Your task to perform on an android device: Go to privacy settings Image 0: 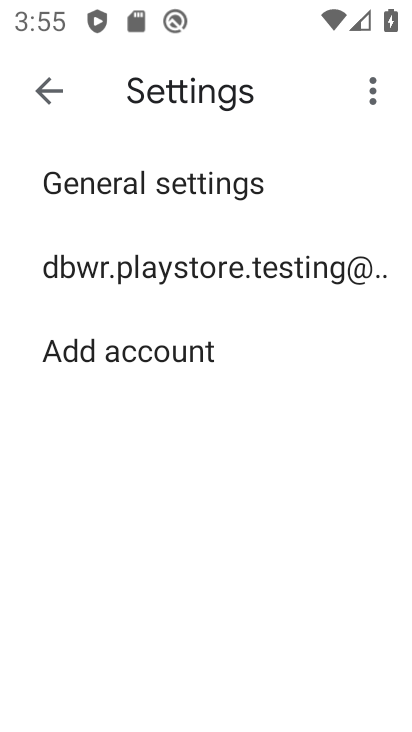
Step 0: click (173, 279)
Your task to perform on an android device: Go to privacy settings Image 1: 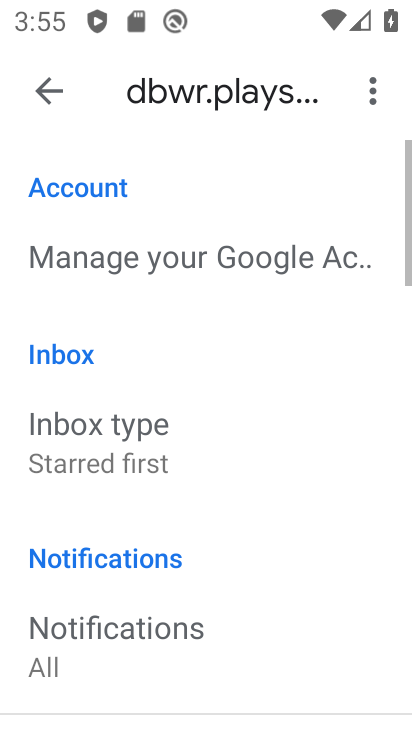
Step 1: drag from (173, 642) to (304, 111)
Your task to perform on an android device: Go to privacy settings Image 2: 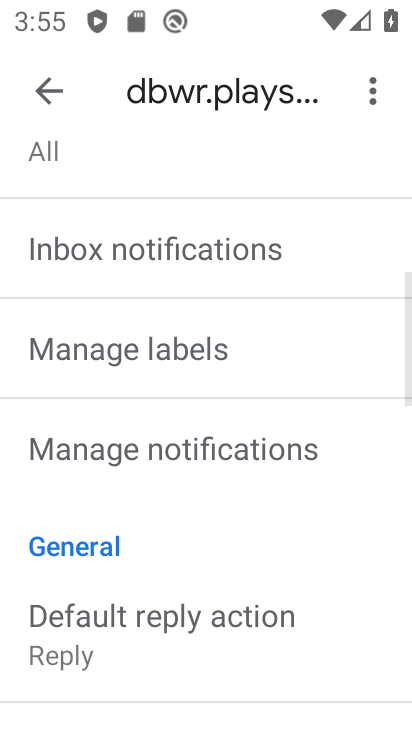
Step 2: drag from (172, 605) to (294, 79)
Your task to perform on an android device: Go to privacy settings Image 3: 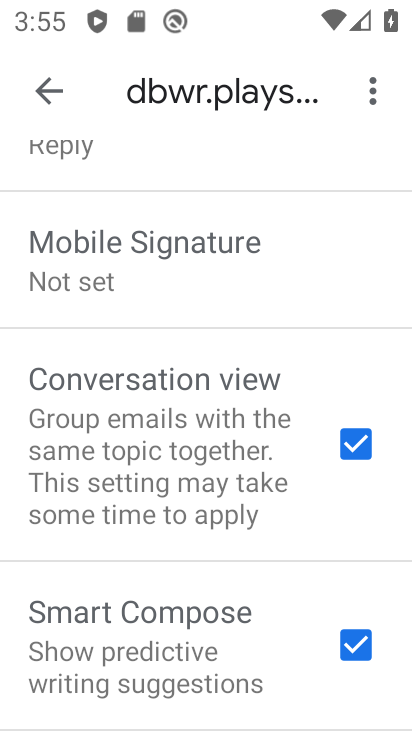
Step 3: drag from (145, 563) to (282, 136)
Your task to perform on an android device: Go to privacy settings Image 4: 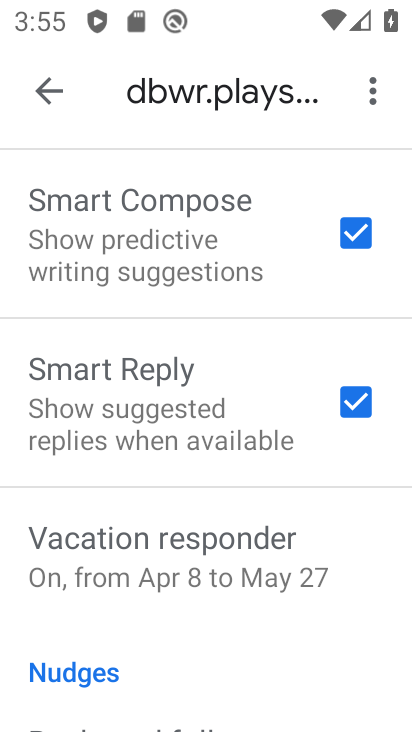
Step 4: drag from (197, 561) to (313, 49)
Your task to perform on an android device: Go to privacy settings Image 5: 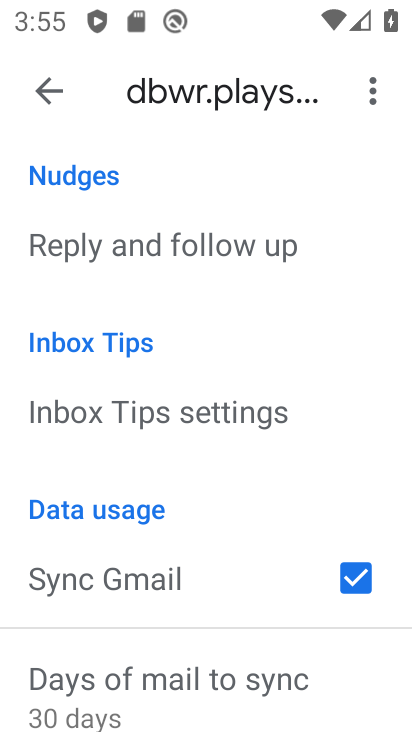
Step 5: drag from (223, 203) to (147, 729)
Your task to perform on an android device: Go to privacy settings Image 6: 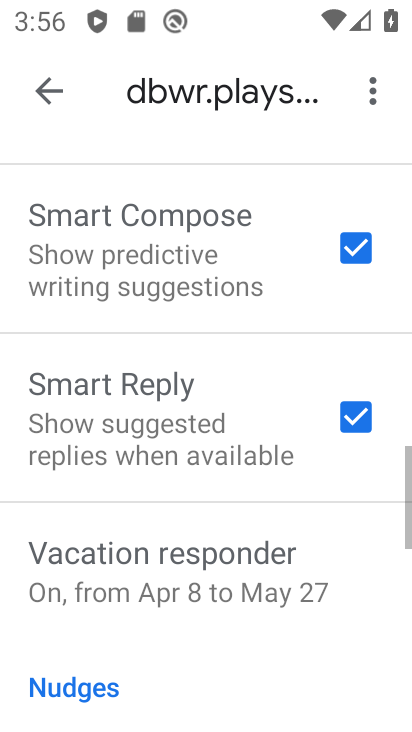
Step 6: drag from (164, 310) to (108, 715)
Your task to perform on an android device: Go to privacy settings Image 7: 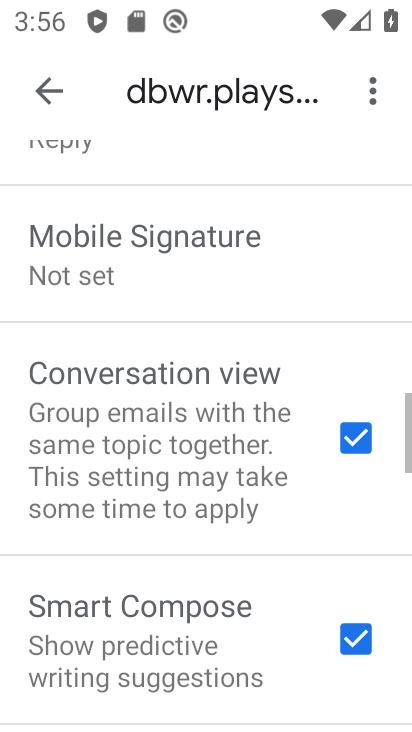
Step 7: drag from (140, 244) to (71, 722)
Your task to perform on an android device: Go to privacy settings Image 8: 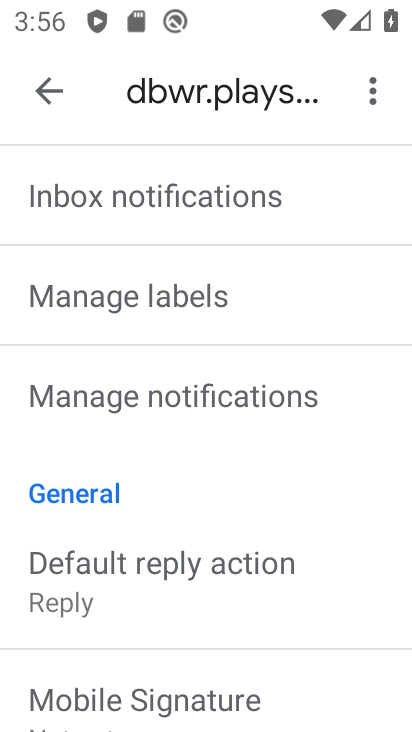
Step 8: click (46, 86)
Your task to perform on an android device: Go to privacy settings Image 9: 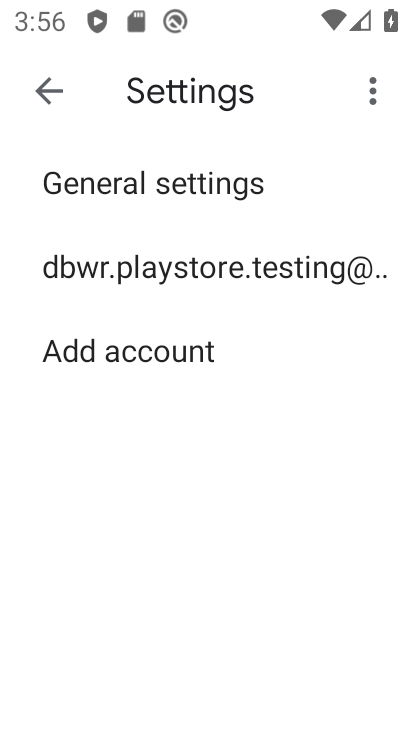
Step 9: click (42, 96)
Your task to perform on an android device: Go to privacy settings Image 10: 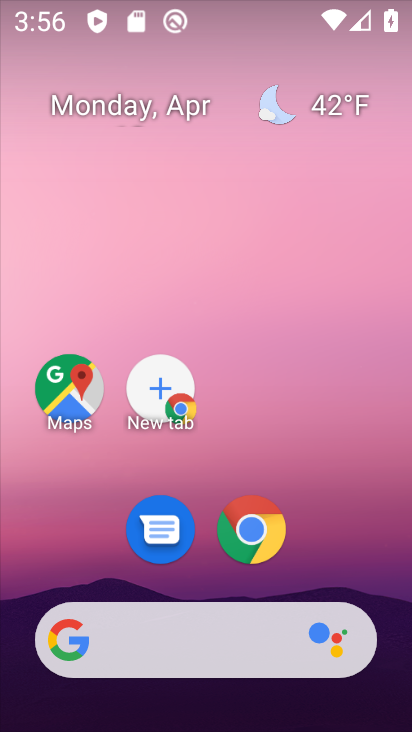
Step 10: click (261, 527)
Your task to perform on an android device: Go to privacy settings Image 11: 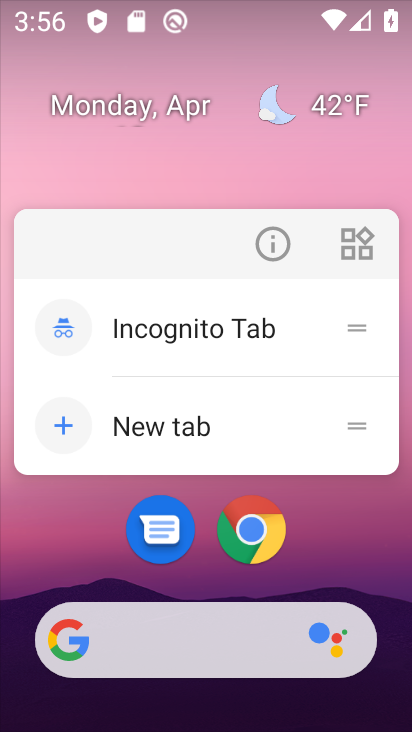
Step 11: click (254, 530)
Your task to perform on an android device: Go to privacy settings Image 12: 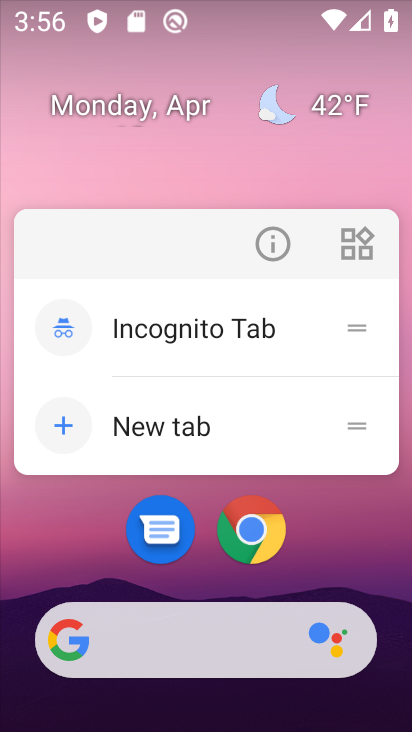
Step 12: click (254, 519)
Your task to perform on an android device: Go to privacy settings Image 13: 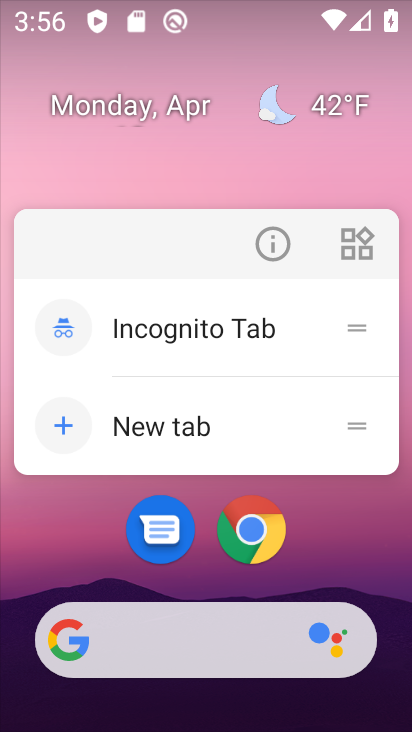
Step 13: click (248, 521)
Your task to perform on an android device: Go to privacy settings Image 14: 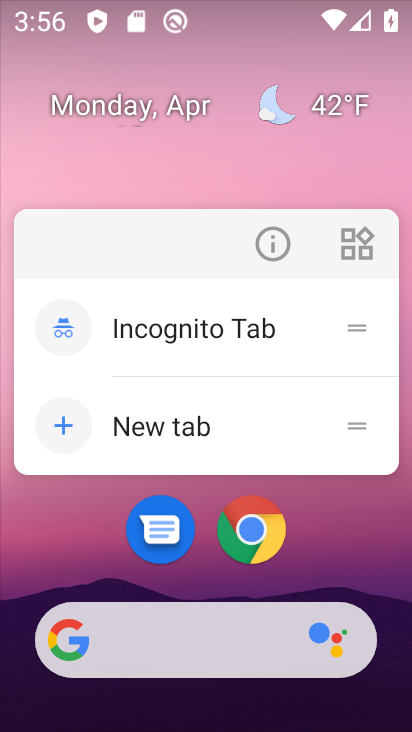
Step 14: click (249, 525)
Your task to perform on an android device: Go to privacy settings Image 15: 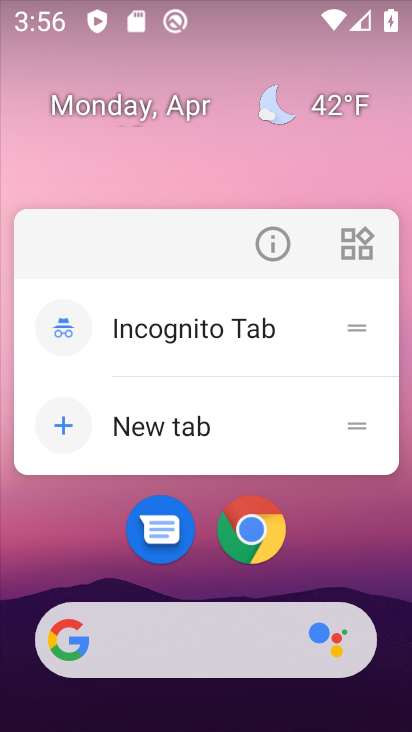
Step 15: click (254, 525)
Your task to perform on an android device: Go to privacy settings Image 16: 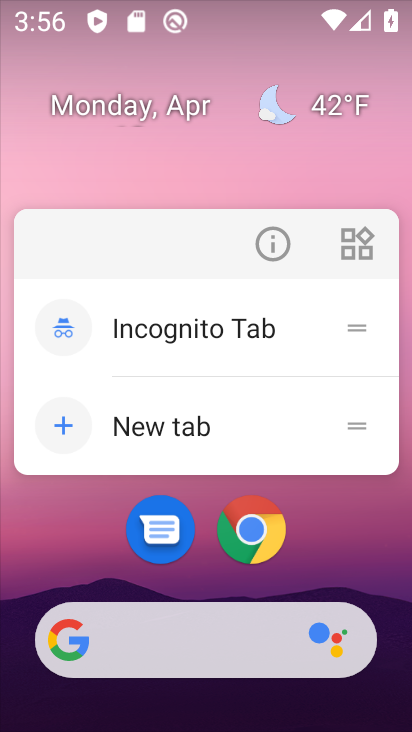
Step 16: click (254, 525)
Your task to perform on an android device: Go to privacy settings Image 17: 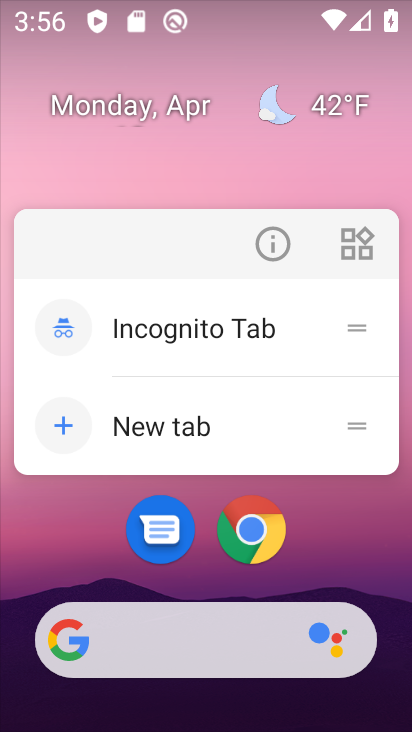
Step 17: click (256, 544)
Your task to perform on an android device: Go to privacy settings Image 18: 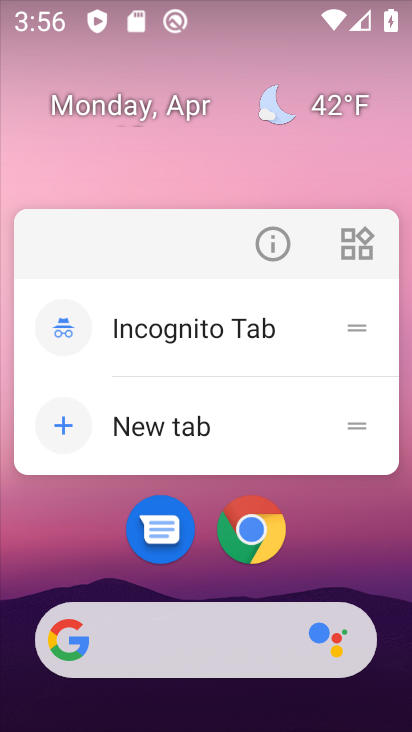
Step 18: click (262, 542)
Your task to perform on an android device: Go to privacy settings Image 19: 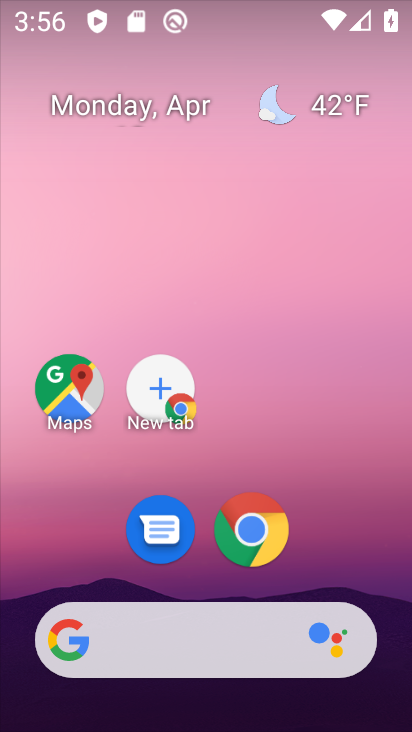
Step 19: click (260, 540)
Your task to perform on an android device: Go to privacy settings Image 20: 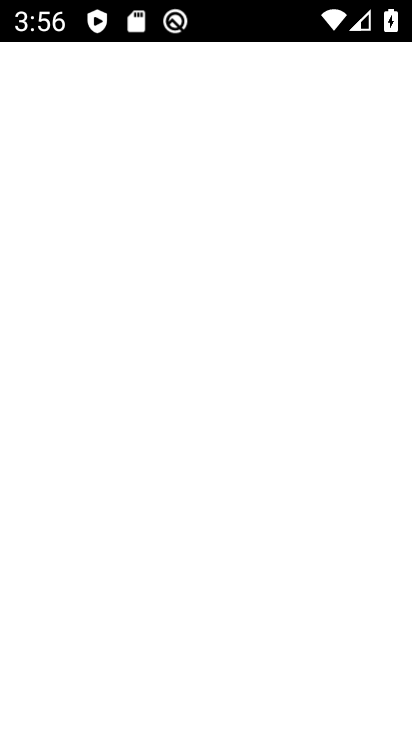
Step 20: click (239, 512)
Your task to perform on an android device: Go to privacy settings Image 21: 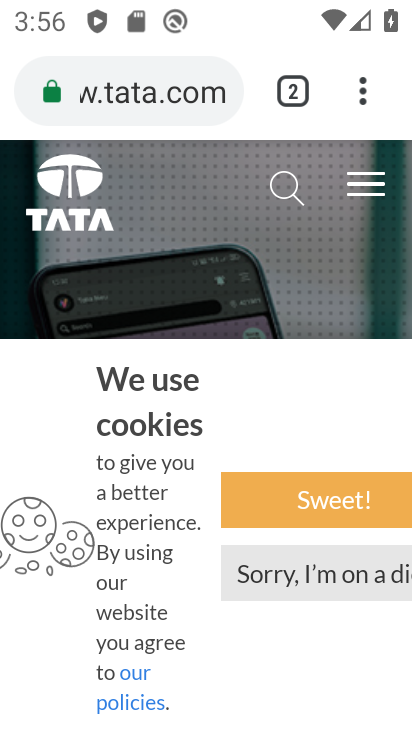
Step 21: click (363, 93)
Your task to perform on an android device: Go to privacy settings Image 22: 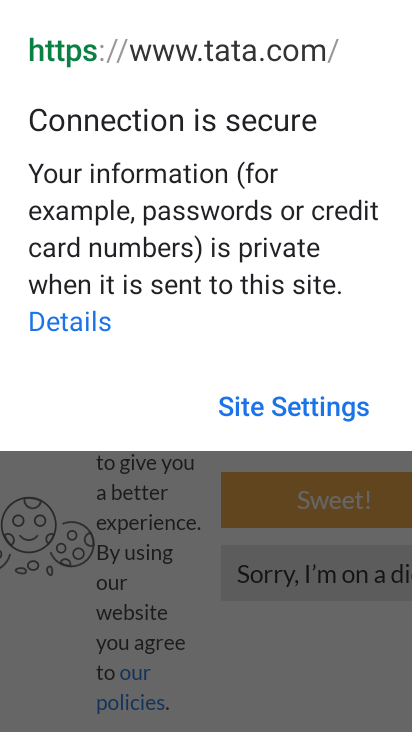
Step 22: click (167, 542)
Your task to perform on an android device: Go to privacy settings Image 23: 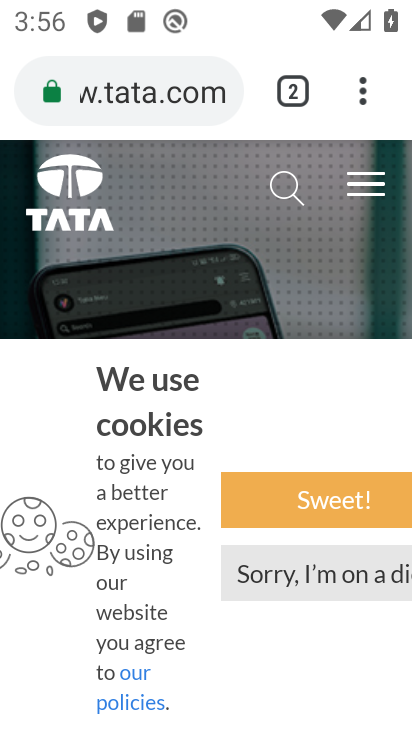
Step 23: click (346, 78)
Your task to perform on an android device: Go to privacy settings Image 24: 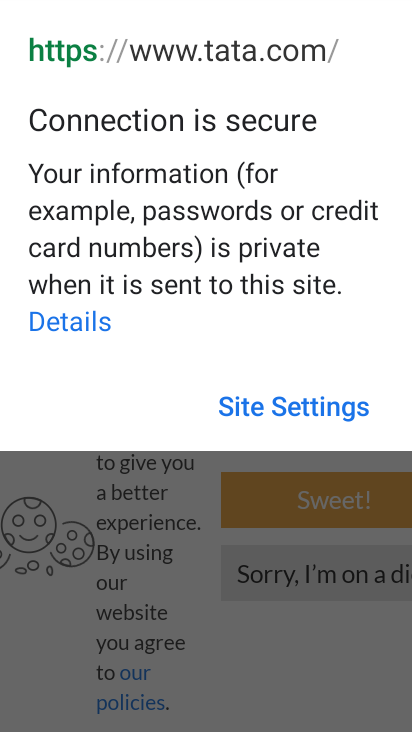
Step 24: click (158, 525)
Your task to perform on an android device: Go to privacy settings Image 25: 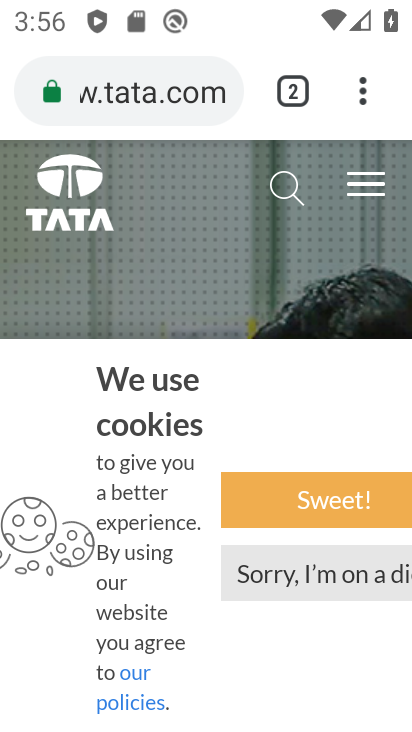
Step 25: click (368, 85)
Your task to perform on an android device: Go to privacy settings Image 26: 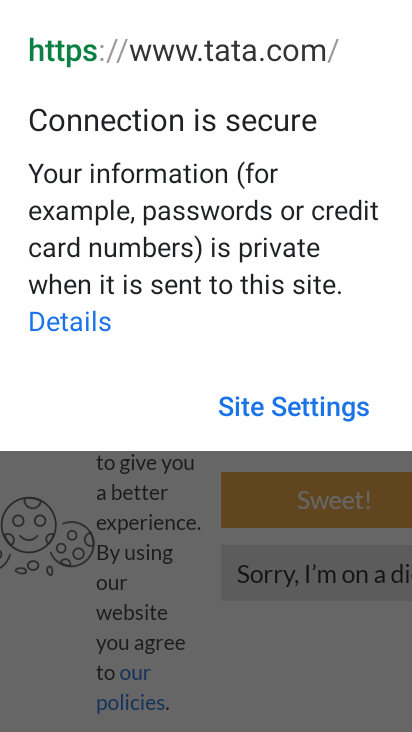
Step 26: click (186, 493)
Your task to perform on an android device: Go to privacy settings Image 27: 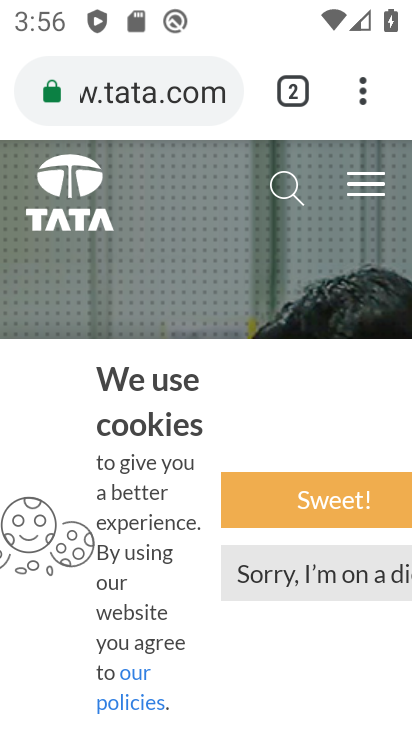
Step 27: click (363, 81)
Your task to perform on an android device: Go to privacy settings Image 28: 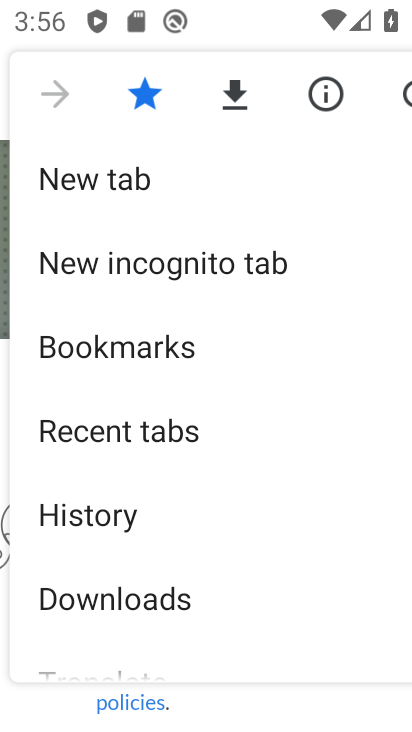
Step 28: drag from (133, 577) to (253, 65)
Your task to perform on an android device: Go to privacy settings Image 29: 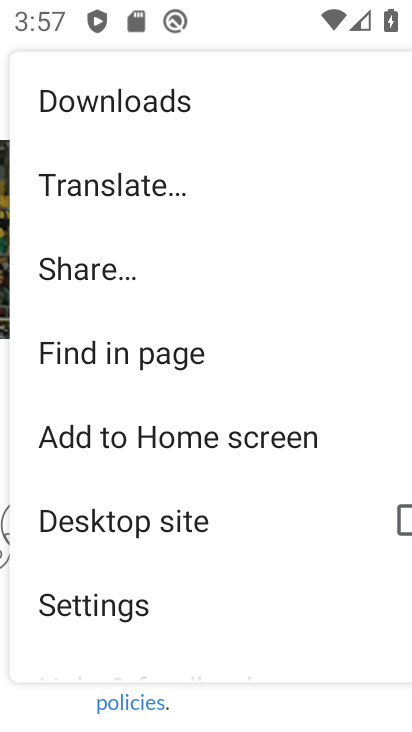
Step 29: drag from (144, 607) to (264, 111)
Your task to perform on an android device: Go to privacy settings Image 30: 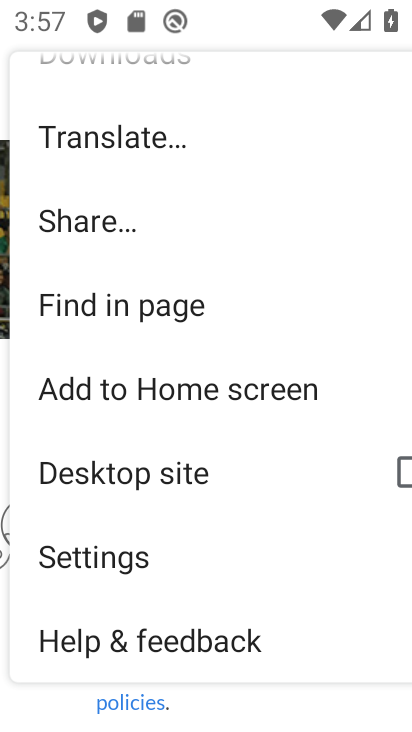
Step 30: click (131, 561)
Your task to perform on an android device: Go to privacy settings Image 31: 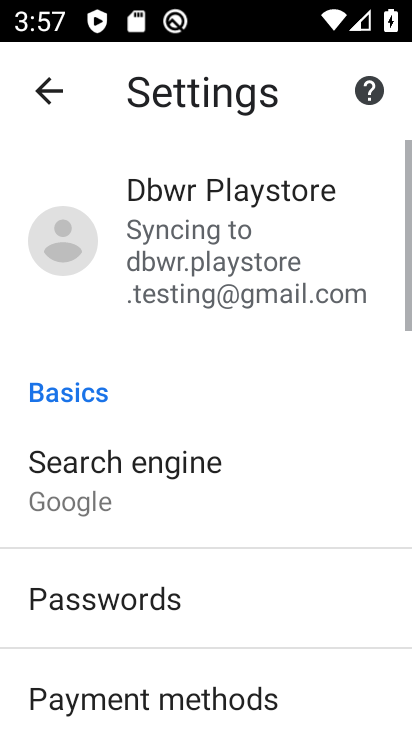
Step 31: drag from (152, 578) to (282, 80)
Your task to perform on an android device: Go to privacy settings Image 32: 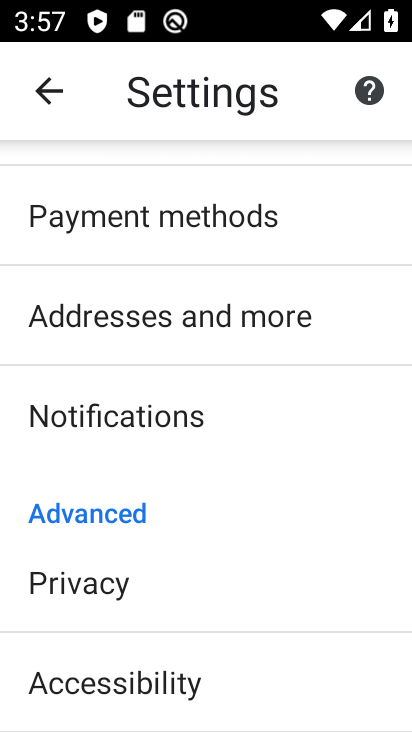
Step 32: click (97, 582)
Your task to perform on an android device: Go to privacy settings Image 33: 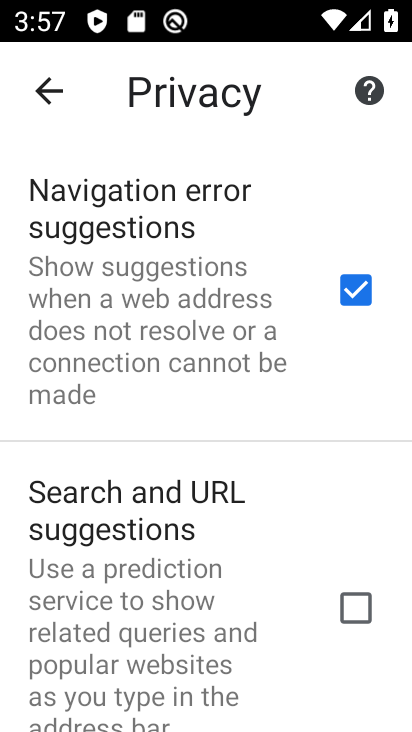
Step 33: task complete